Your task to perform on an android device: Is it going to rain this weekend? Image 0: 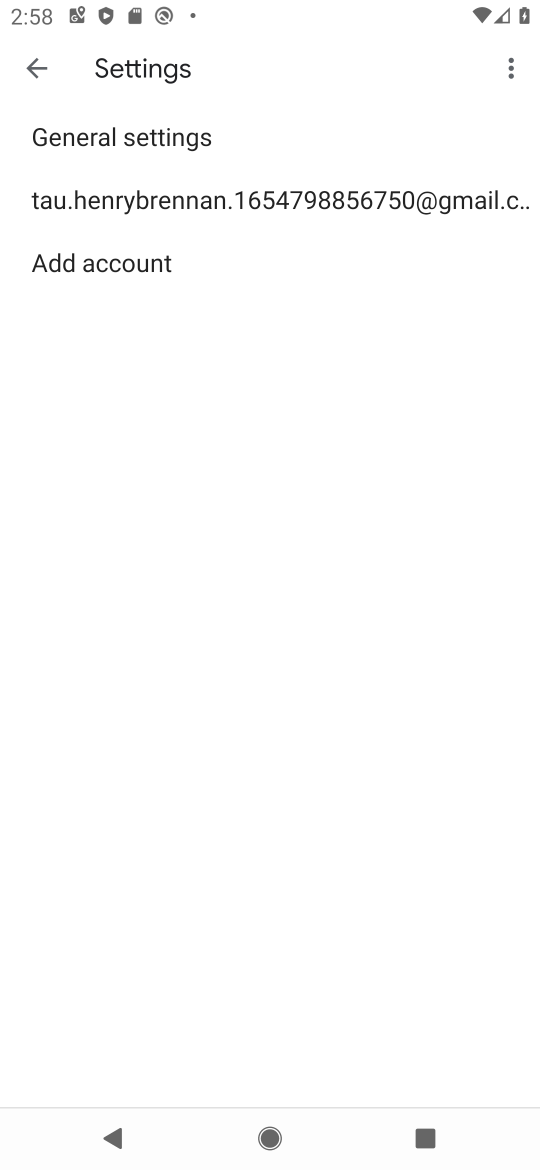
Step 0: press home button
Your task to perform on an android device: Is it going to rain this weekend? Image 1: 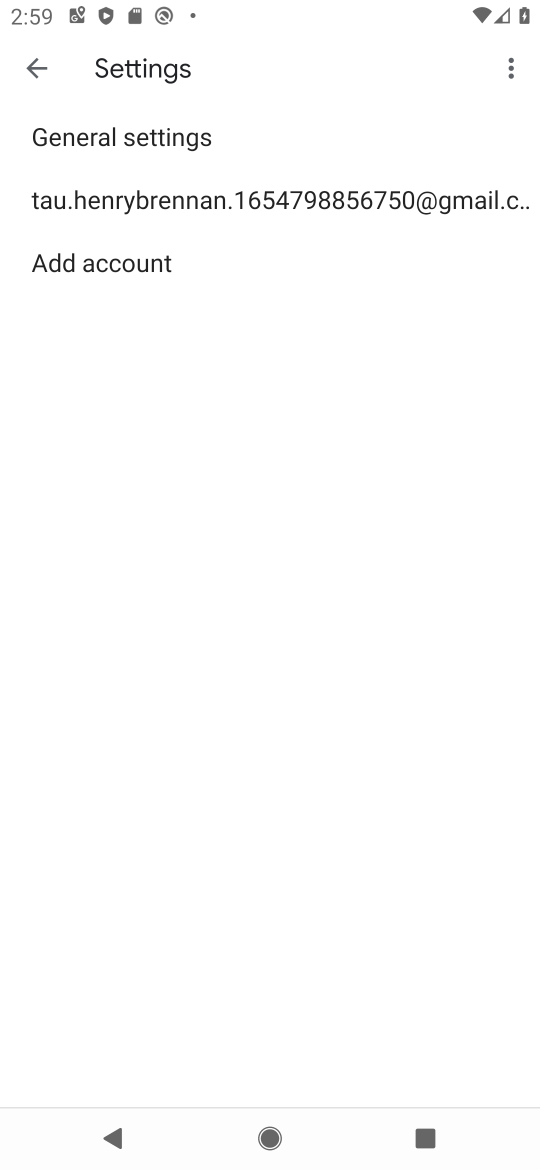
Step 1: press home button
Your task to perform on an android device: Is it going to rain this weekend? Image 2: 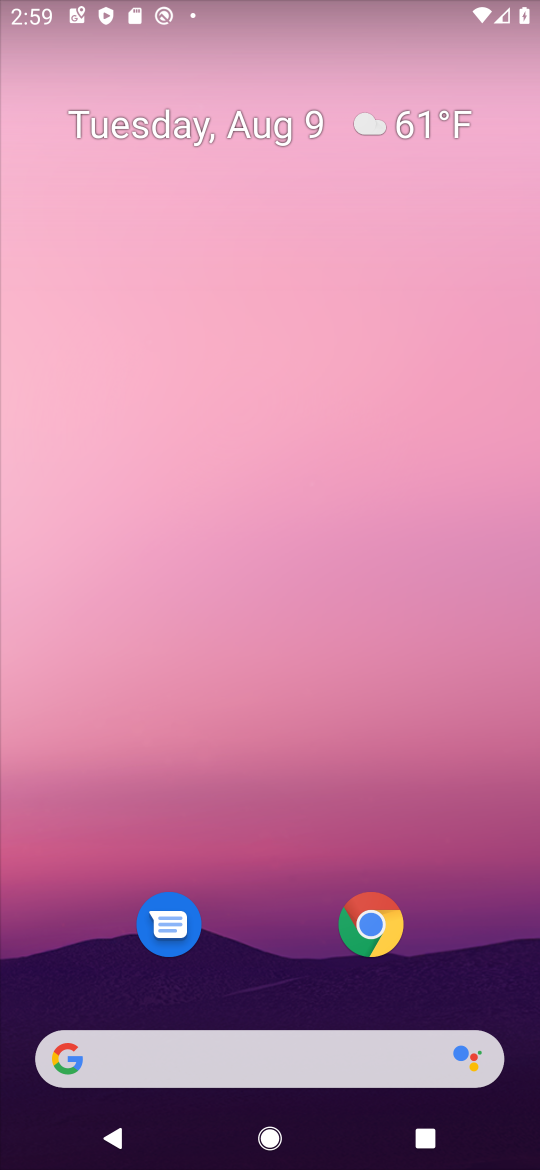
Step 2: click (326, 1068)
Your task to perform on an android device: Is it going to rain this weekend? Image 3: 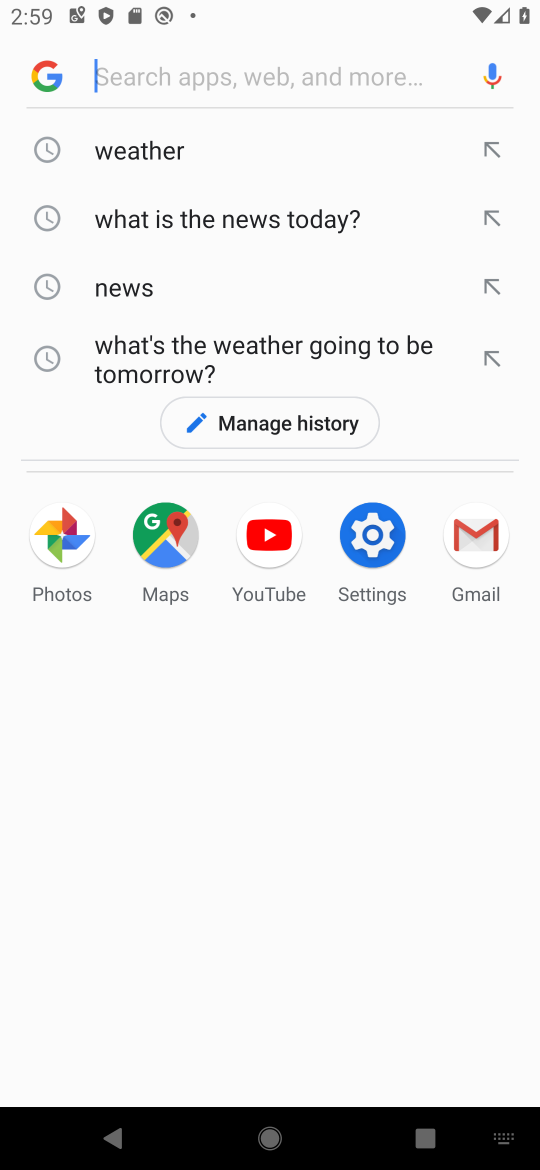
Step 3: click (170, 154)
Your task to perform on an android device: Is it going to rain this weekend? Image 4: 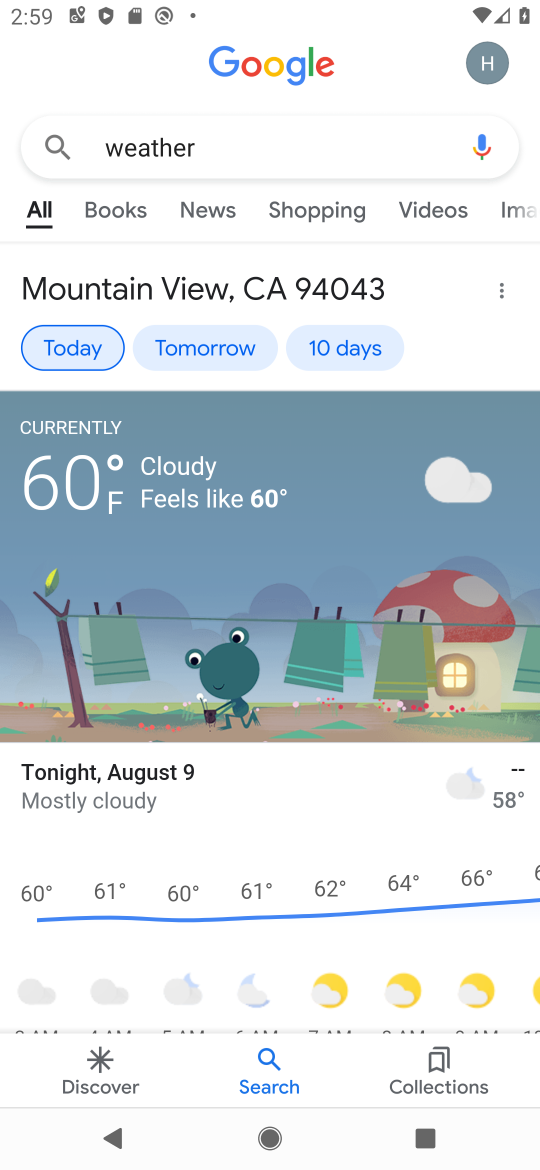
Step 4: click (371, 350)
Your task to perform on an android device: Is it going to rain this weekend? Image 5: 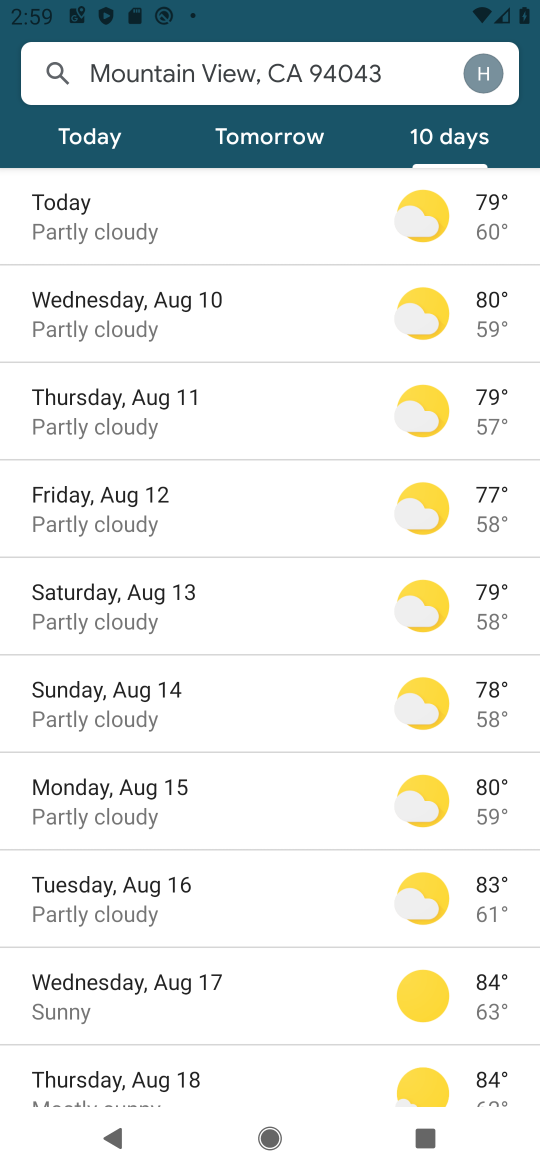
Step 5: click (202, 587)
Your task to perform on an android device: Is it going to rain this weekend? Image 6: 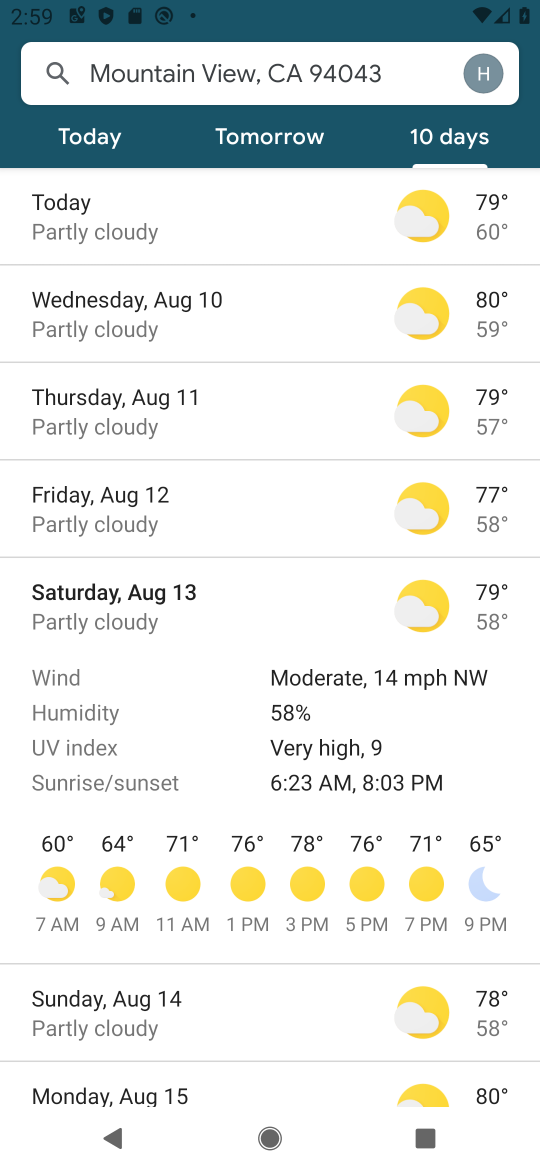
Step 6: task complete